Your task to perform on an android device: Open network settings Image 0: 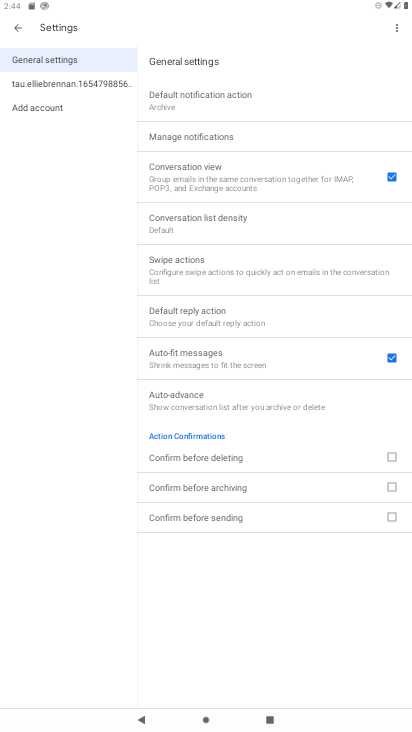
Step 0: press home button
Your task to perform on an android device: Open network settings Image 1: 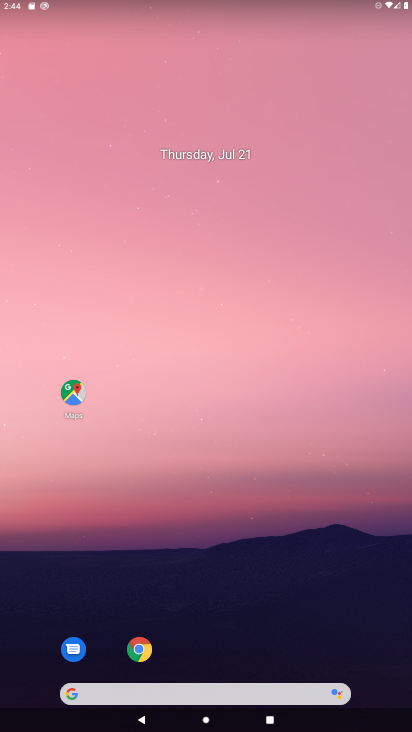
Step 1: drag from (274, 596) to (189, 95)
Your task to perform on an android device: Open network settings Image 2: 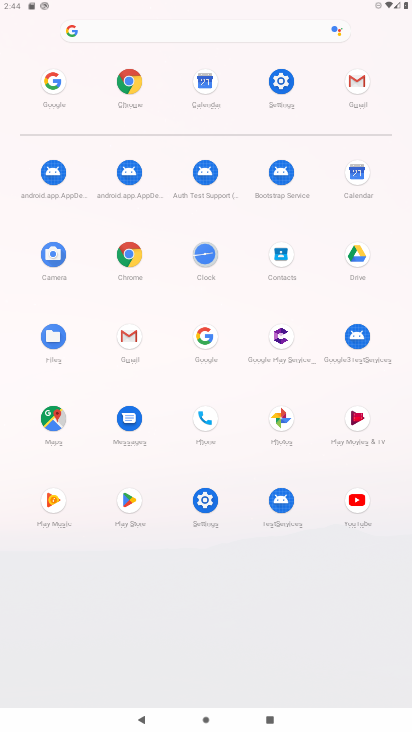
Step 2: click (284, 78)
Your task to perform on an android device: Open network settings Image 3: 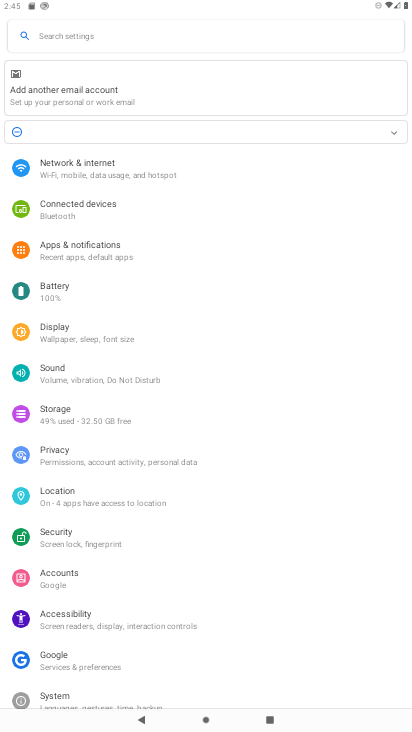
Step 3: click (87, 167)
Your task to perform on an android device: Open network settings Image 4: 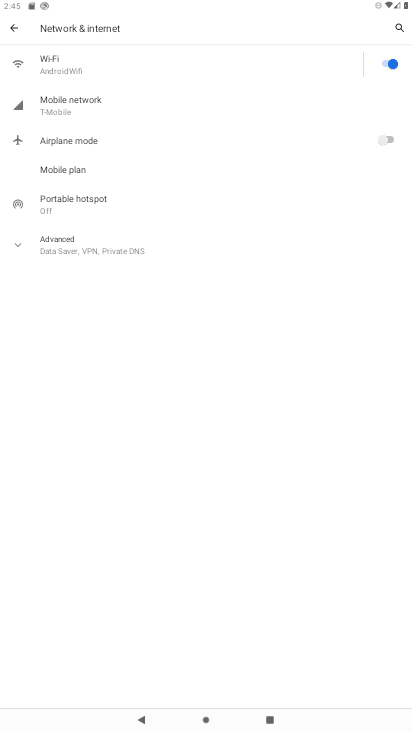
Step 4: task complete